Your task to perform on an android device: Go to settings Image 0: 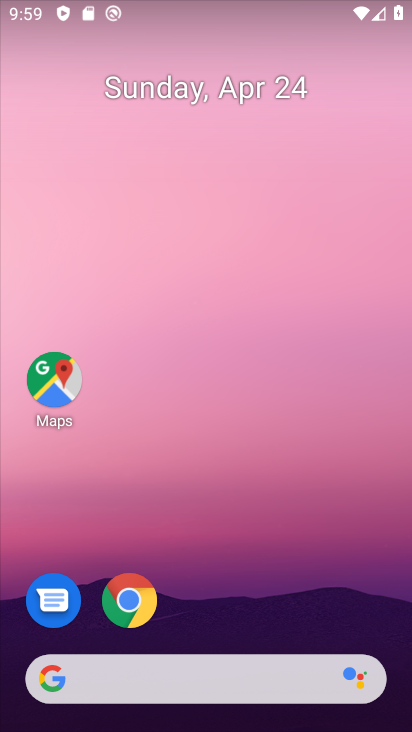
Step 0: drag from (231, 473) to (255, 11)
Your task to perform on an android device: Go to settings Image 1: 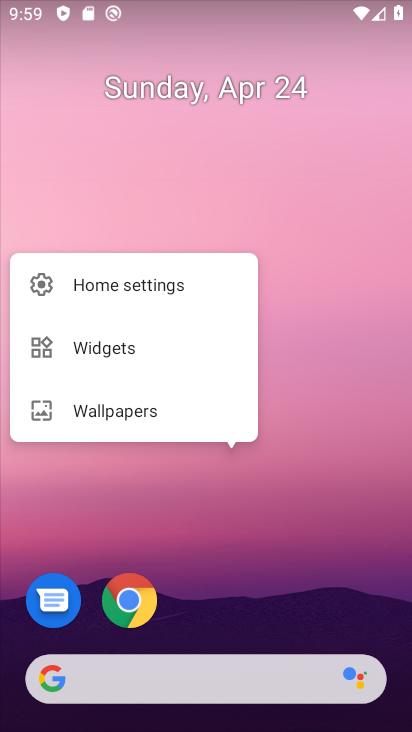
Step 1: click (265, 517)
Your task to perform on an android device: Go to settings Image 2: 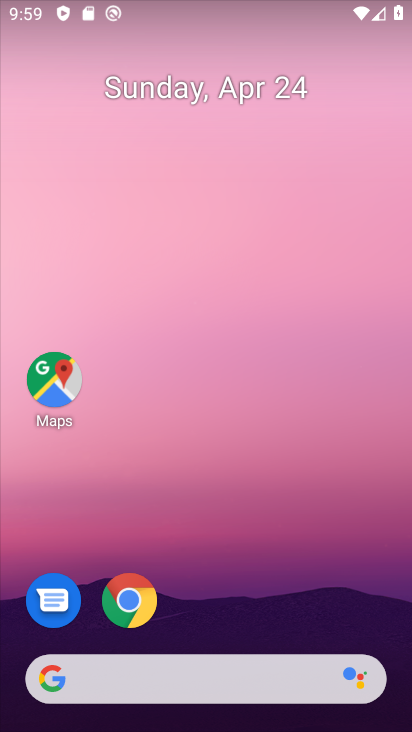
Step 2: drag from (223, 599) to (208, 16)
Your task to perform on an android device: Go to settings Image 3: 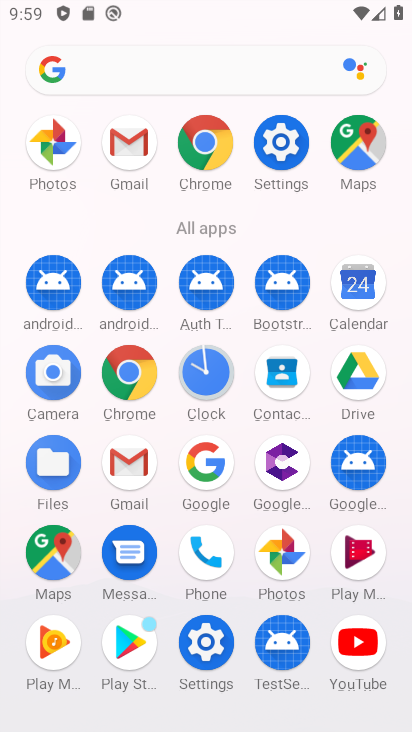
Step 3: click (276, 145)
Your task to perform on an android device: Go to settings Image 4: 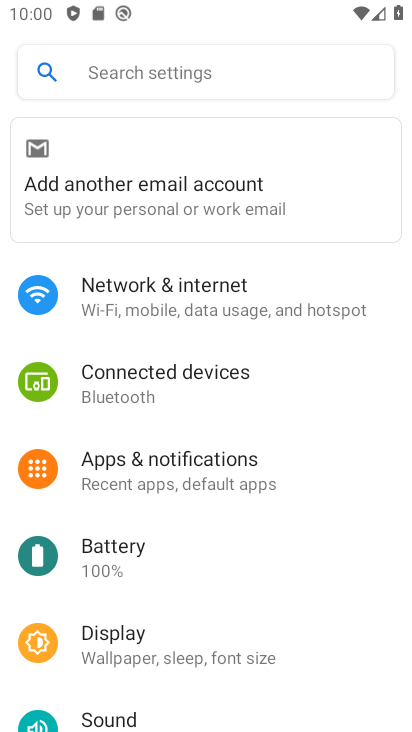
Step 4: task complete